Your task to perform on an android device: Empty the shopping cart on bestbuy. Search for macbook pro 13 inch on bestbuy, select the first entry, add it to the cart, then select checkout. Image 0: 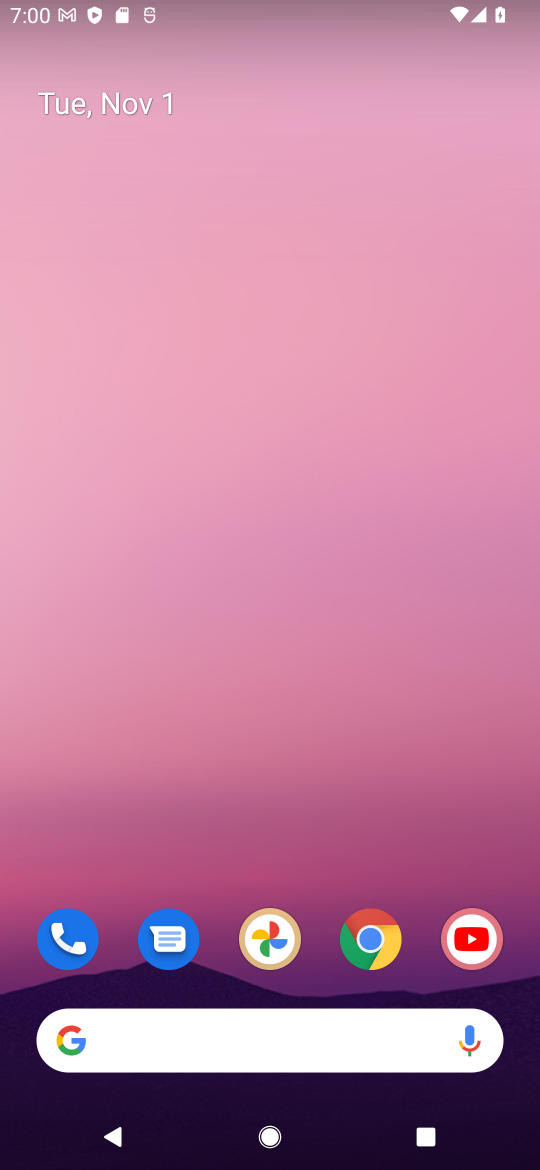
Step 0: drag from (217, 706) to (152, 82)
Your task to perform on an android device: Empty the shopping cart on bestbuy. Search for macbook pro 13 inch on bestbuy, select the first entry, add it to the cart, then select checkout. Image 1: 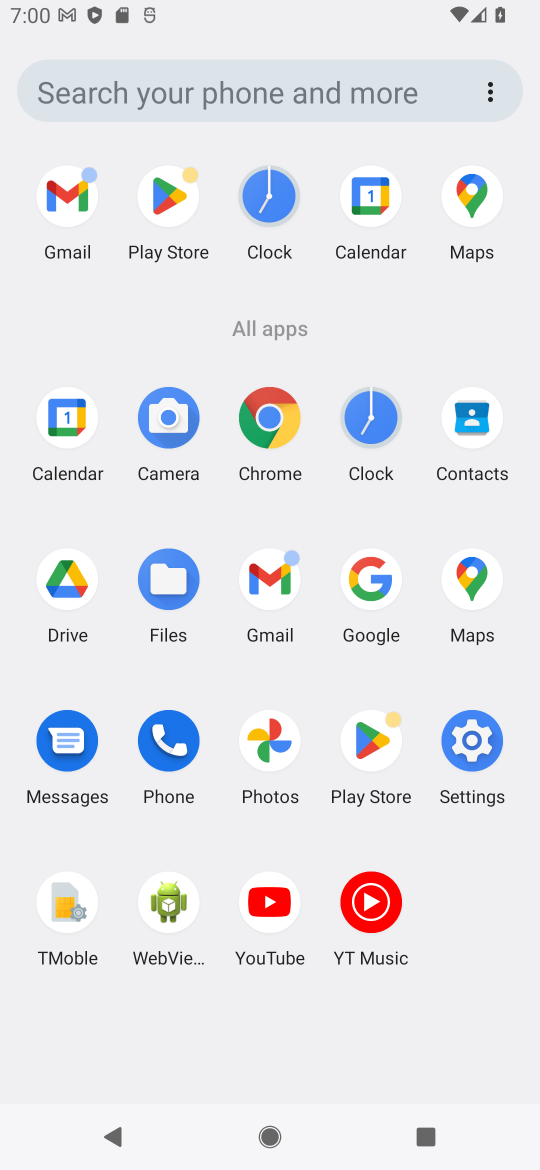
Step 1: click (269, 428)
Your task to perform on an android device: Empty the shopping cart on bestbuy. Search for macbook pro 13 inch on bestbuy, select the first entry, add it to the cart, then select checkout. Image 2: 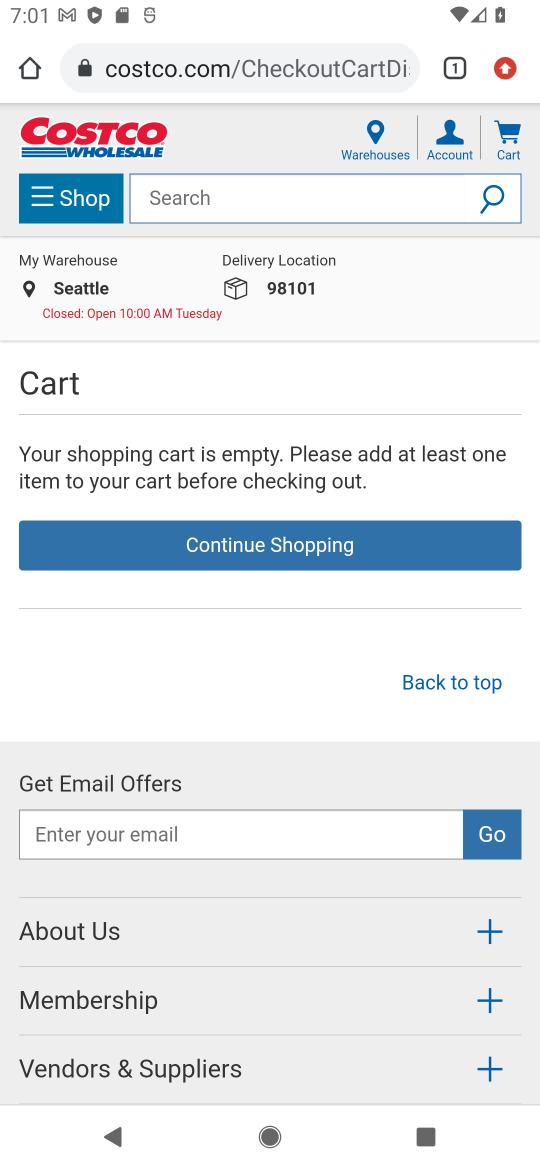
Step 2: click (234, 83)
Your task to perform on an android device: Empty the shopping cart on bestbuy. Search for macbook pro 13 inch on bestbuy, select the first entry, add it to the cart, then select checkout. Image 3: 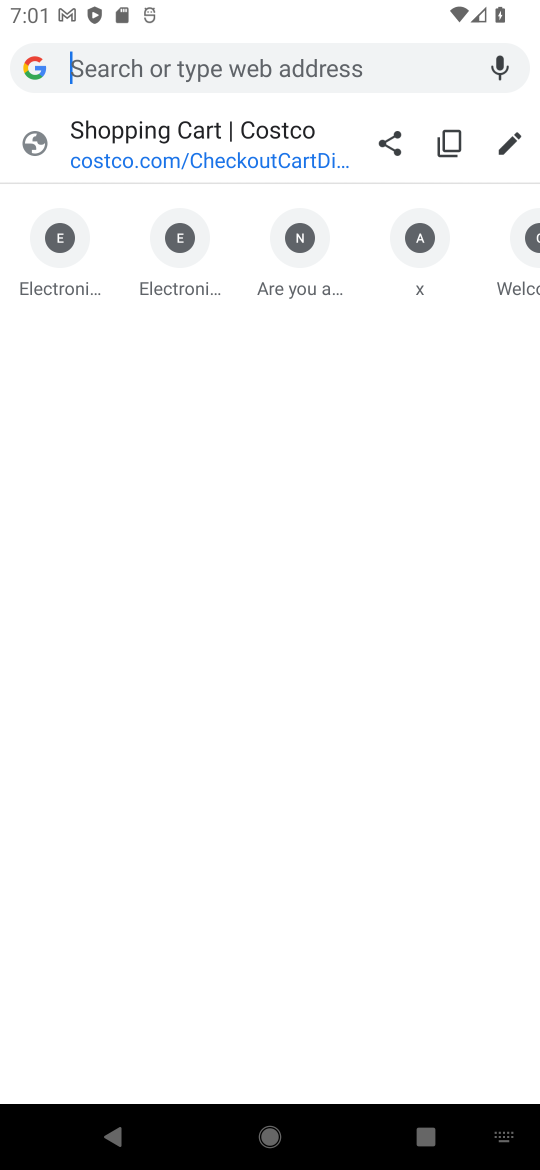
Step 3: click (275, 75)
Your task to perform on an android device: Empty the shopping cart on bestbuy. Search for macbook pro 13 inch on bestbuy, select the first entry, add it to the cart, then select checkout. Image 4: 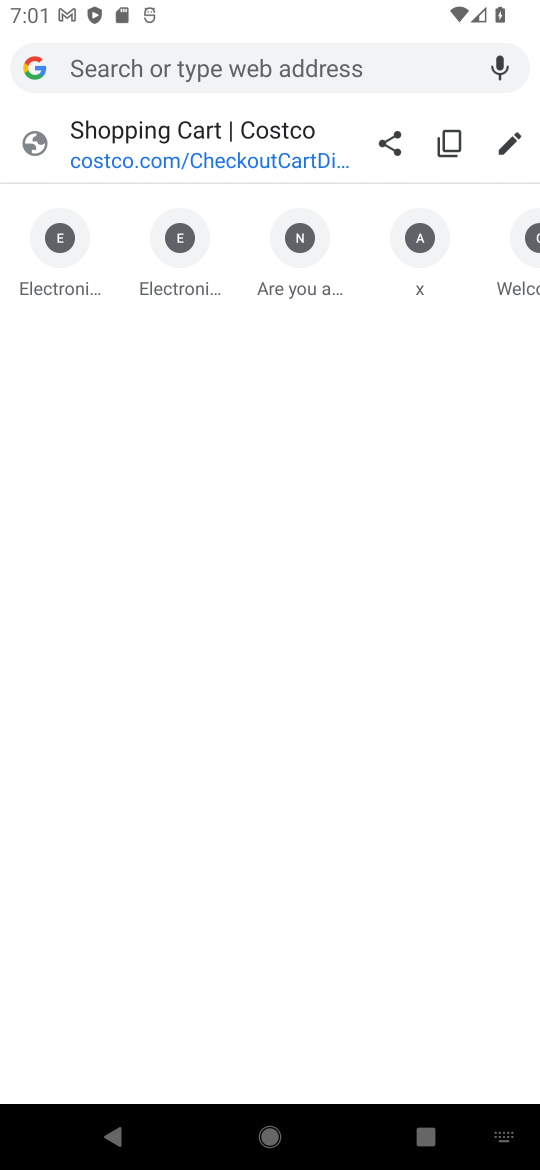
Step 4: type " bestbuy."
Your task to perform on an android device: Empty the shopping cart on bestbuy. Search for macbook pro 13 inch on bestbuy, select the first entry, add it to the cart, then select checkout. Image 5: 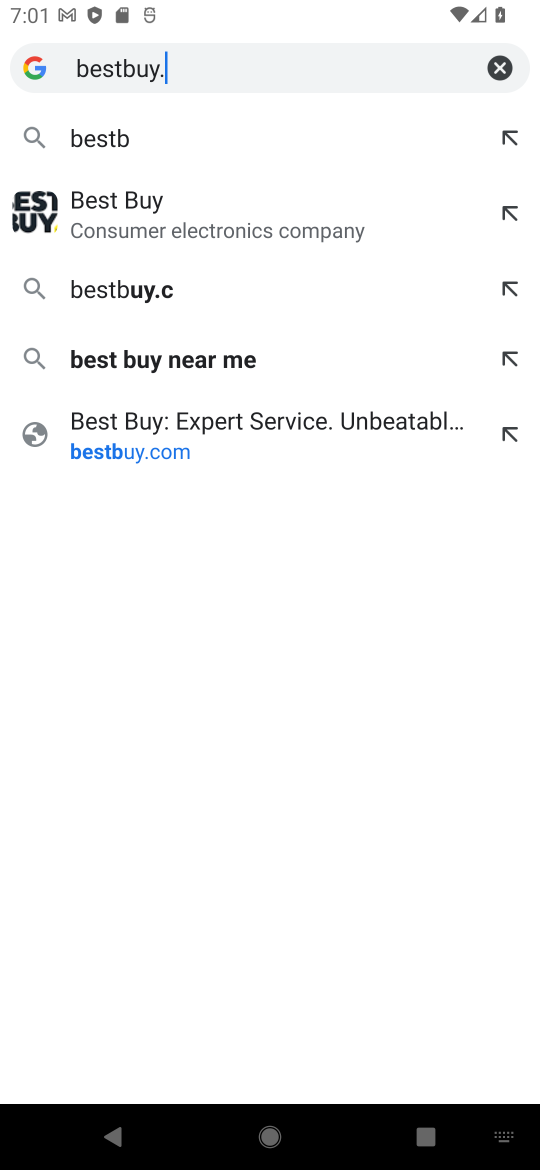
Step 5: press enter
Your task to perform on an android device: Empty the shopping cart on bestbuy. Search for macbook pro 13 inch on bestbuy, select the first entry, add it to the cart, then select checkout. Image 6: 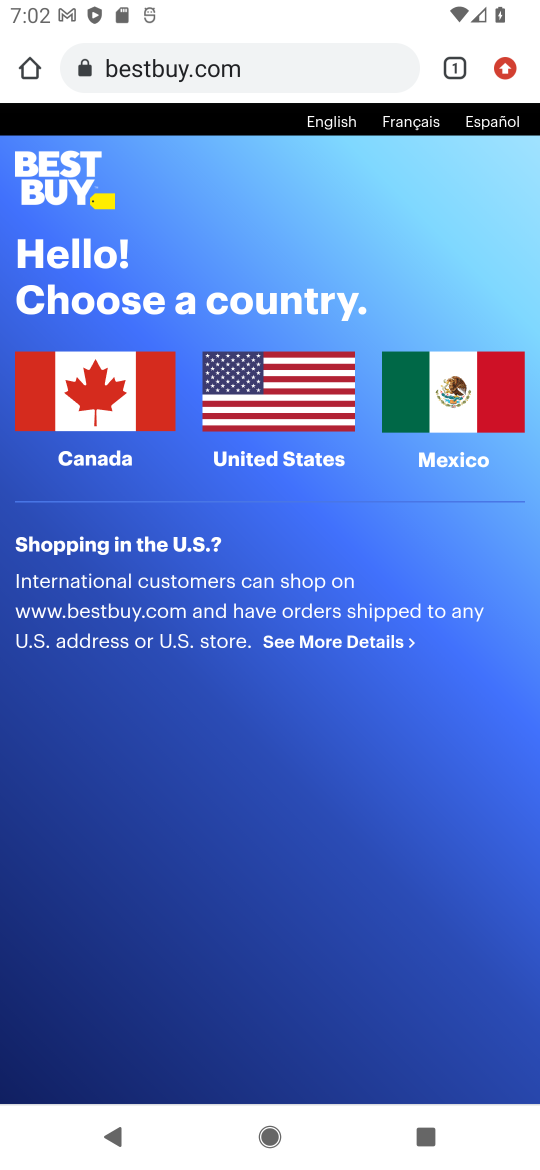
Step 6: click (70, 407)
Your task to perform on an android device: Empty the shopping cart on bestbuy. Search for macbook pro 13 inch on bestbuy, select the first entry, add it to the cart, then select checkout. Image 7: 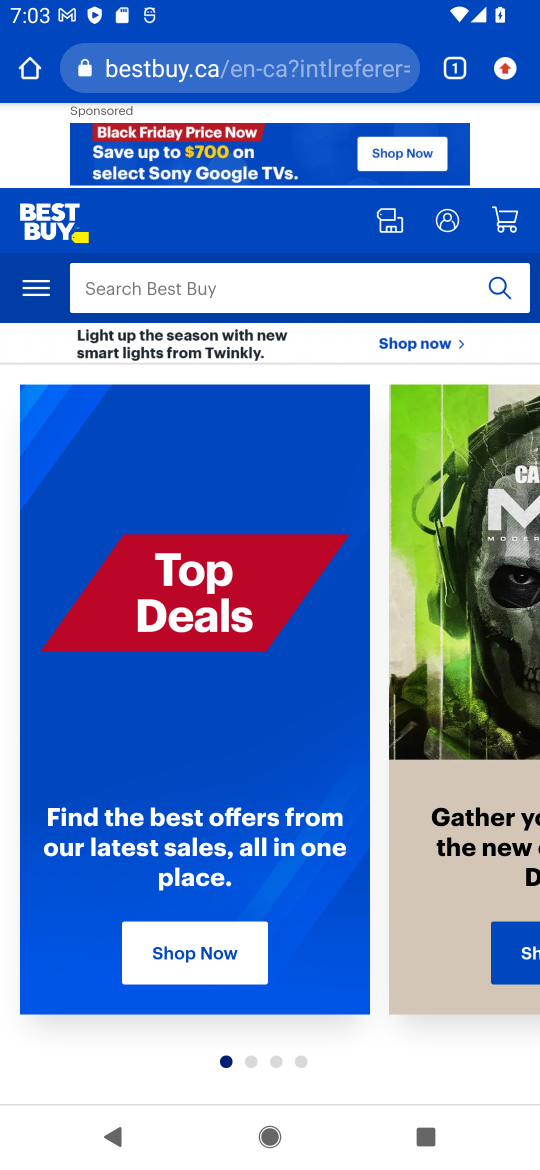
Step 7: click (97, 305)
Your task to perform on an android device: Empty the shopping cart on bestbuy. Search for macbook pro 13 inch on bestbuy, select the first entry, add it to the cart, then select checkout. Image 8: 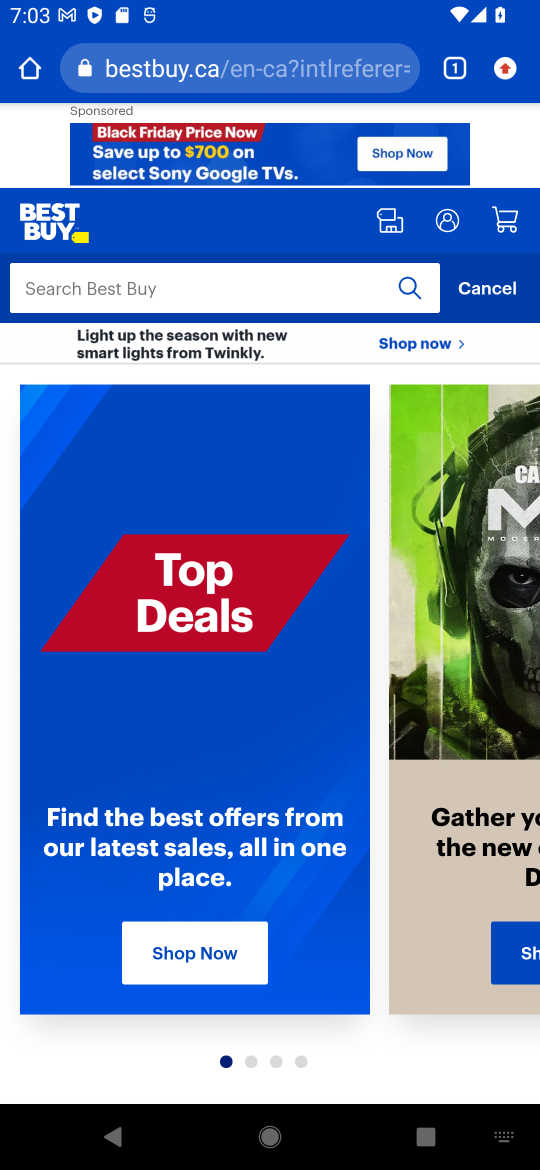
Step 8: type " macbook pro 13 inch"
Your task to perform on an android device: Empty the shopping cart on bestbuy. Search for macbook pro 13 inch on bestbuy, select the first entry, add it to the cart, then select checkout. Image 9: 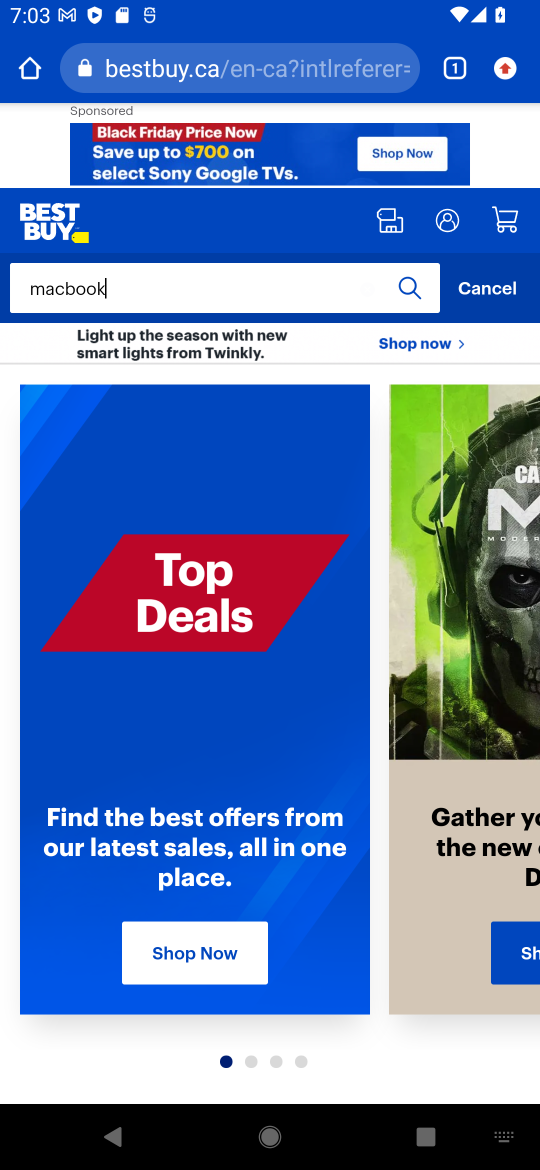
Step 9: press enter
Your task to perform on an android device: Empty the shopping cart on bestbuy. Search for macbook pro 13 inch on bestbuy, select the first entry, add it to the cart, then select checkout. Image 10: 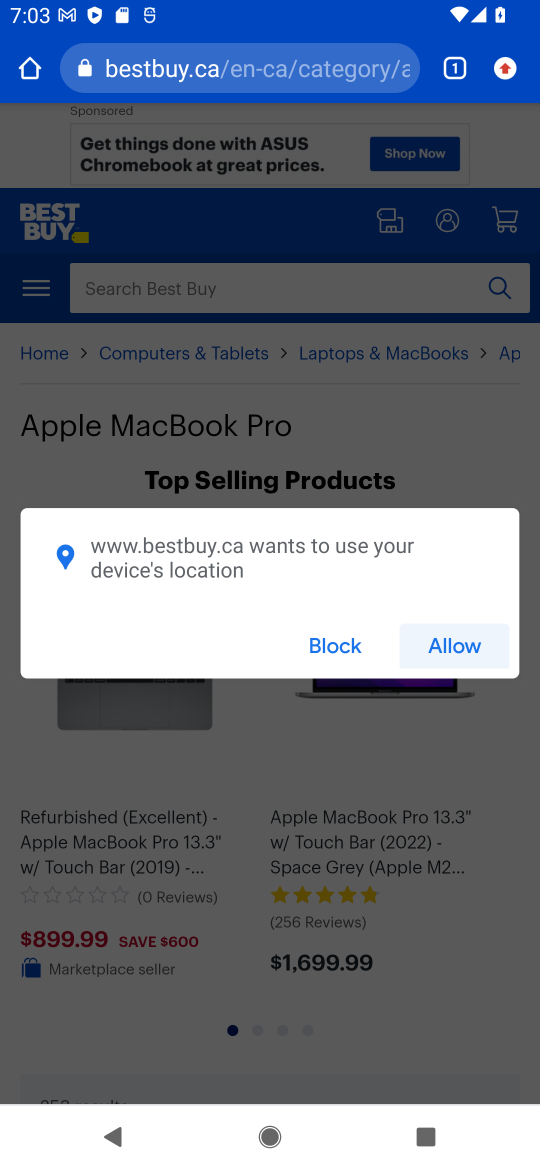
Step 10: click (428, 639)
Your task to perform on an android device: Empty the shopping cart on bestbuy. Search for macbook pro 13 inch on bestbuy, select the first entry, add it to the cart, then select checkout. Image 11: 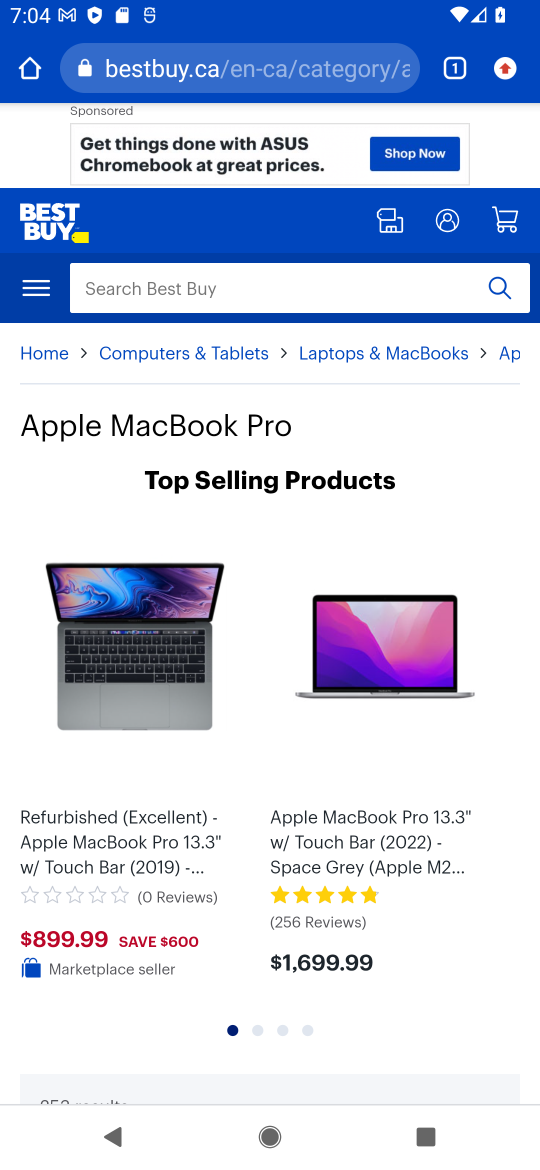
Step 11: click (165, 714)
Your task to perform on an android device: Empty the shopping cart on bestbuy. Search for macbook pro 13 inch on bestbuy, select the first entry, add it to the cart, then select checkout. Image 12: 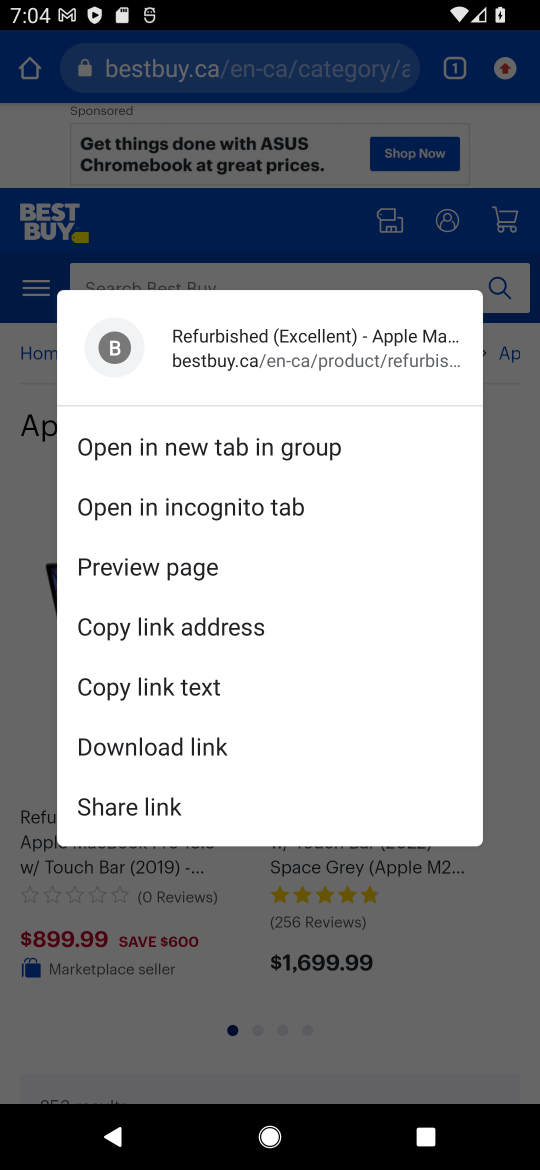
Step 12: click (124, 923)
Your task to perform on an android device: Empty the shopping cart on bestbuy. Search for macbook pro 13 inch on bestbuy, select the first entry, add it to the cart, then select checkout. Image 13: 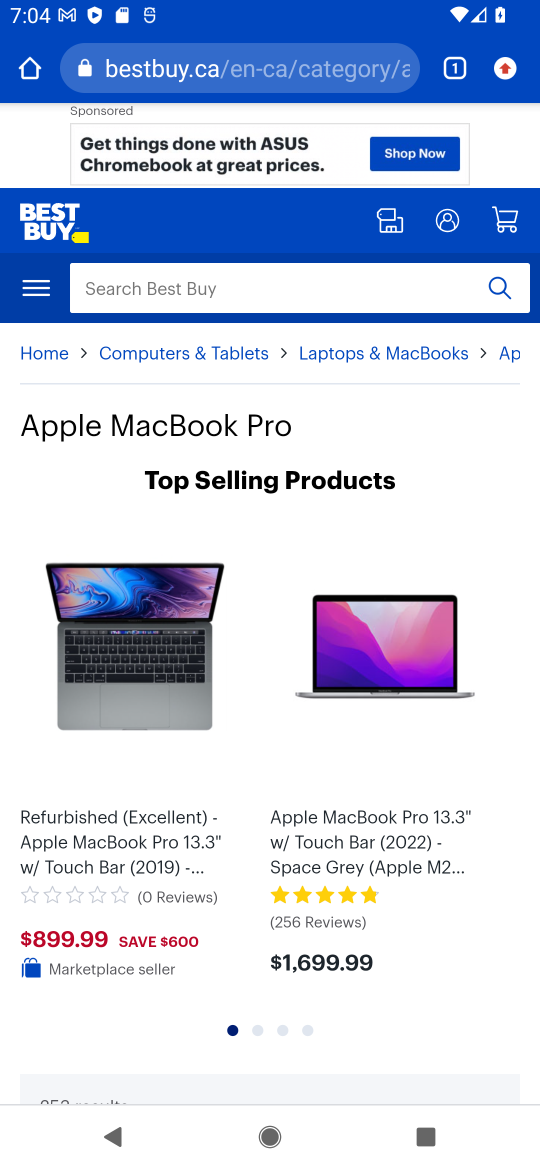
Step 13: click (94, 842)
Your task to perform on an android device: Empty the shopping cart on bestbuy. Search for macbook pro 13 inch on bestbuy, select the first entry, add it to the cart, then select checkout. Image 14: 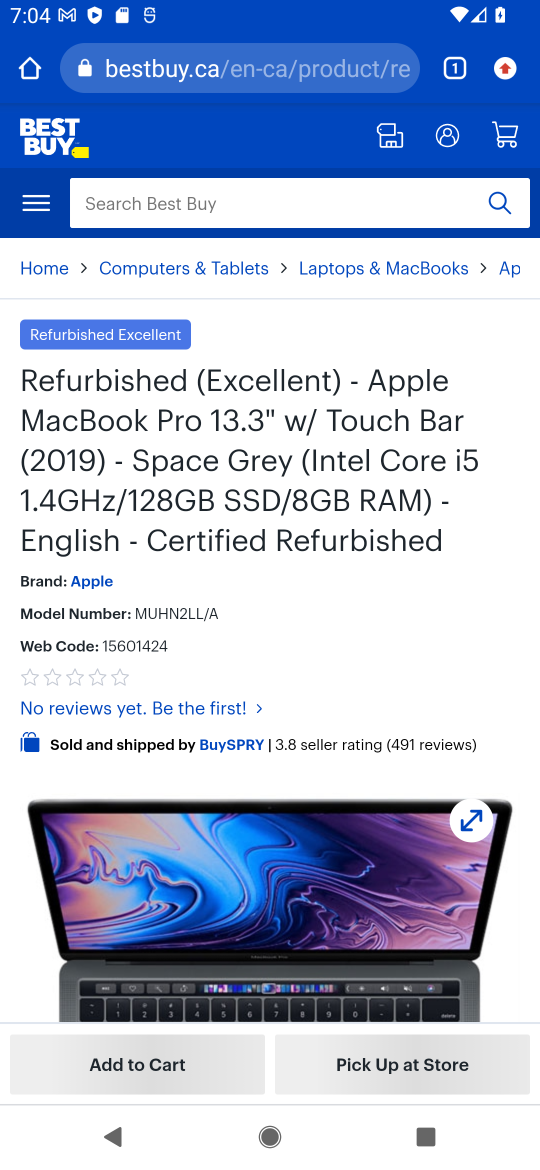
Step 14: drag from (83, 828) to (188, 539)
Your task to perform on an android device: Empty the shopping cart on bestbuy. Search for macbook pro 13 inch on bestbuy, select the first entry, add it to the cart, then select checkout. Image 15: 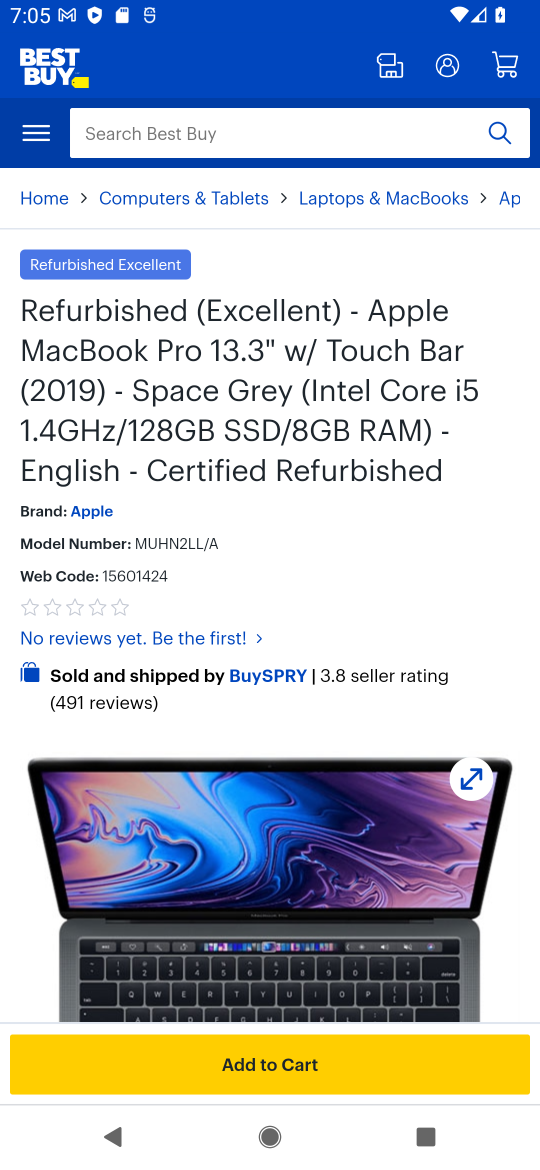
Step 15: drag from (125, 768) to (180, 322)
Your task to perform on an android device: Empty the shopping cart on bestbuy. Search for macbook pro 13 inch on bestbuy, select the first entry, add it to the cart, then select checkout. Image 16: 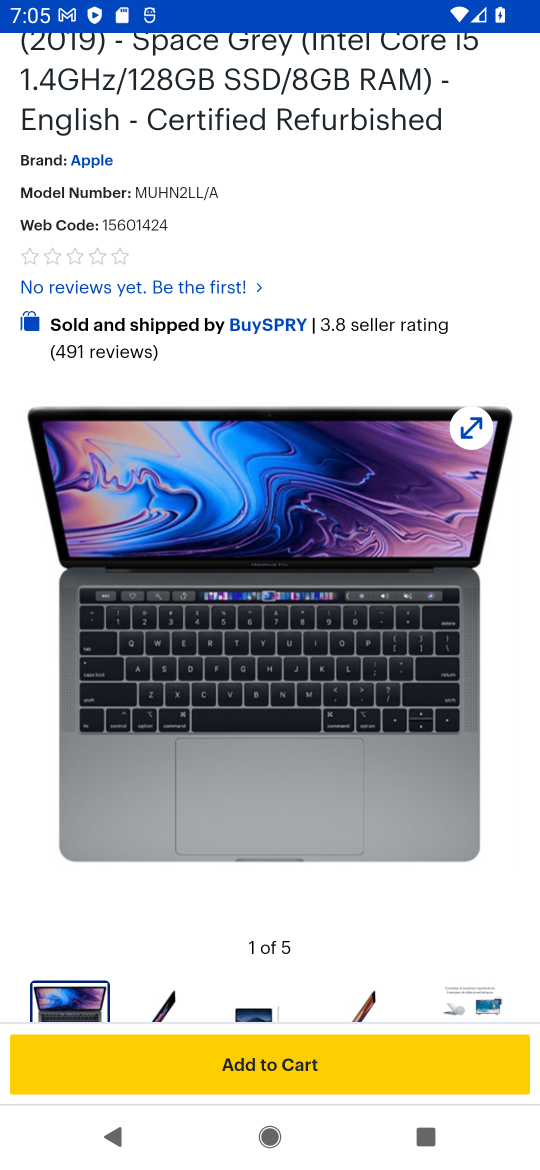
Step 16: drag from (220, 847) to (166, 516)
Your task to perform on an android device: Empty the shopping cart on bestbuy. Search for macbook pro 13 inch on bestbuy, select the first entry, add it to the cart, then select checkout. Image 17: 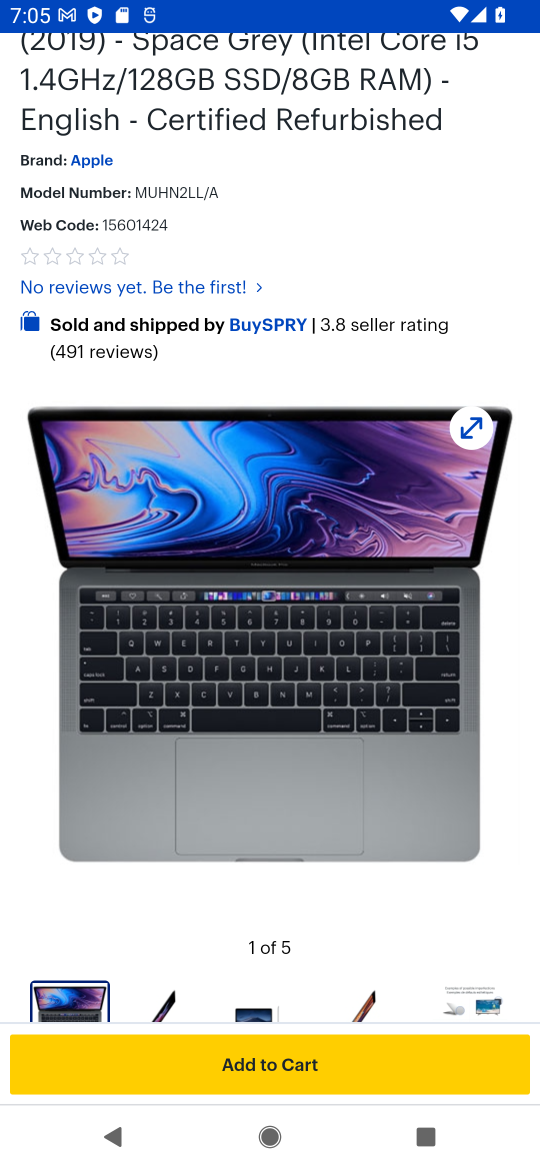
Step 17: click (194, 1071)
Your task to perform on an android device: Empty the shopping cart on bestbuy. Search for macbook pro 13 inch on bestbuy, select the first entry, add it to the cart, then select checkout. Image 18: 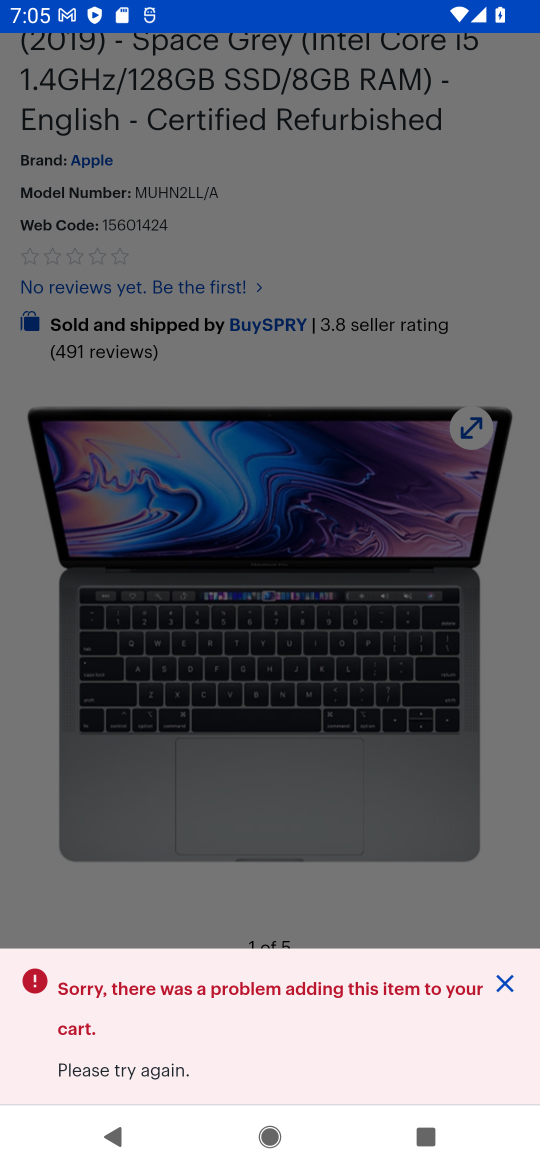
Step 18: task complete